Your task to perform on an android device: open sync settings in chrome Image 0: 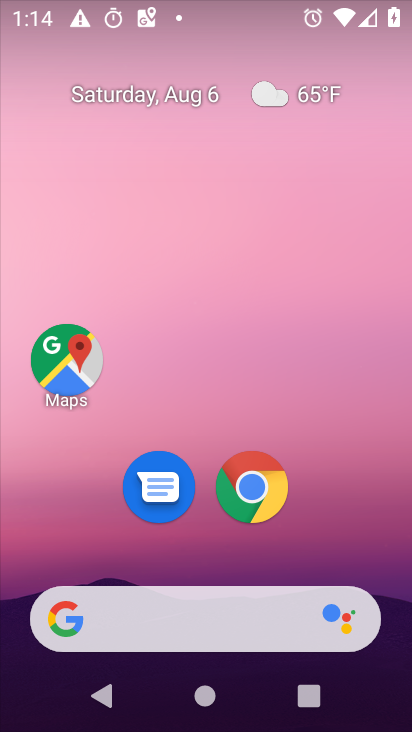
Step 0: click (261, 486)
Your task to perform on an android device: open sync settings in chrome Image 1: 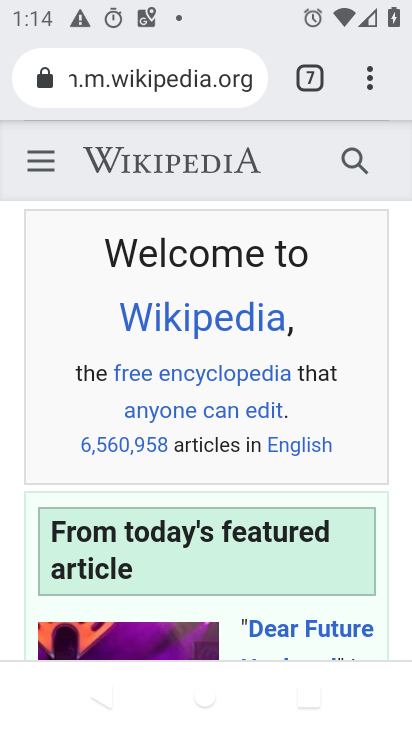
Step 1: drag from (365, 69) to (205, 552)
Your task to perform on an android device: open sync settings in chrome Image 2: 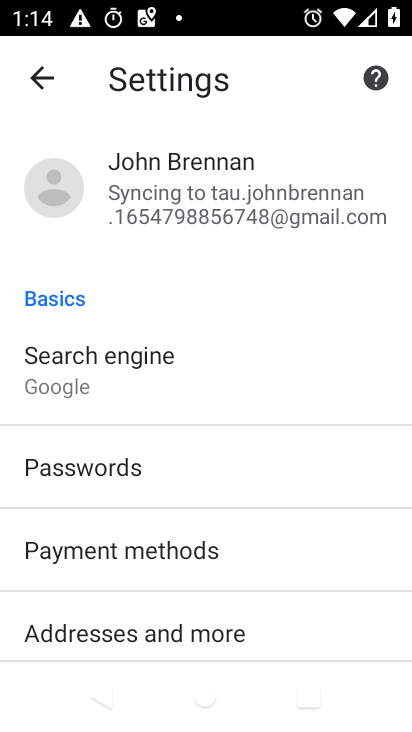
Step 2: click (158, 208)
Your task to perform on an android device: open sync settings in chrome Image 3: 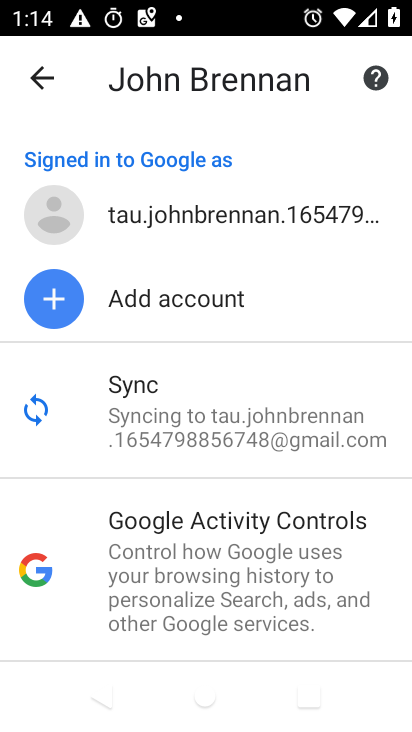
Step 3: task complete